Your task to perform on an android device: turn pop-ups on in chrome Image 0: 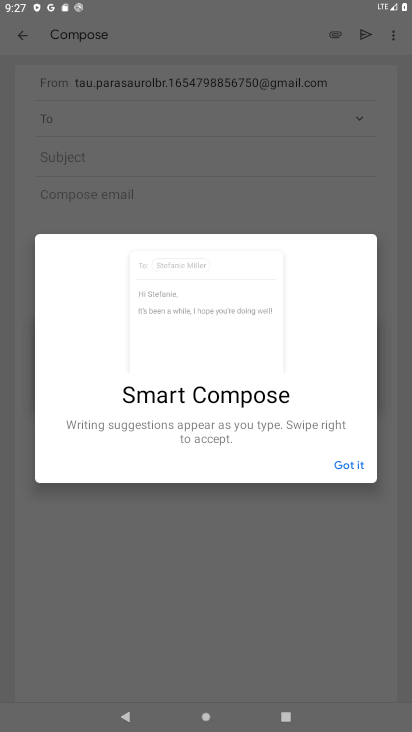
Step 0: press home button
Your task to perform on an android device: turn pop-ups on in chrome Image 1: 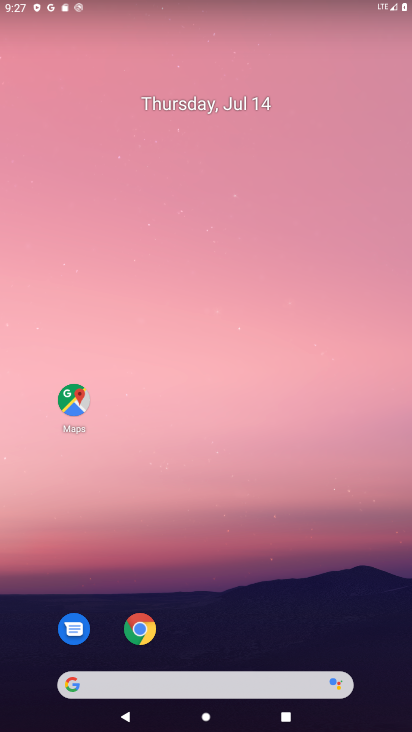
Step 1: click (149, 639)
Your task to perform on an android device: turn pop-ups on in chrome Image 2: 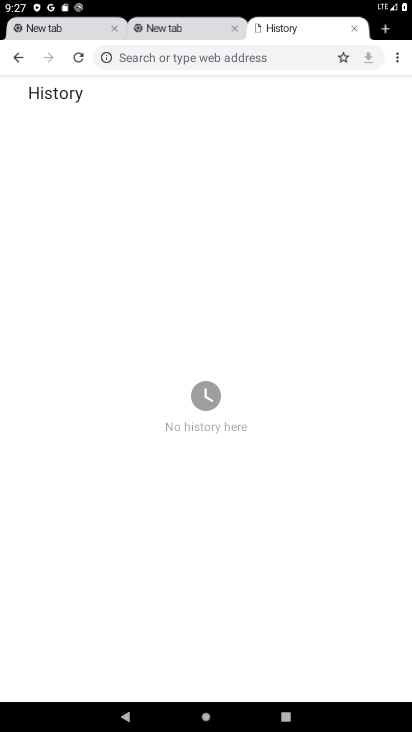
Step 2: click (398, 49)
Your task to perform on an android device: turn pop-ups on in chrome Image 3: 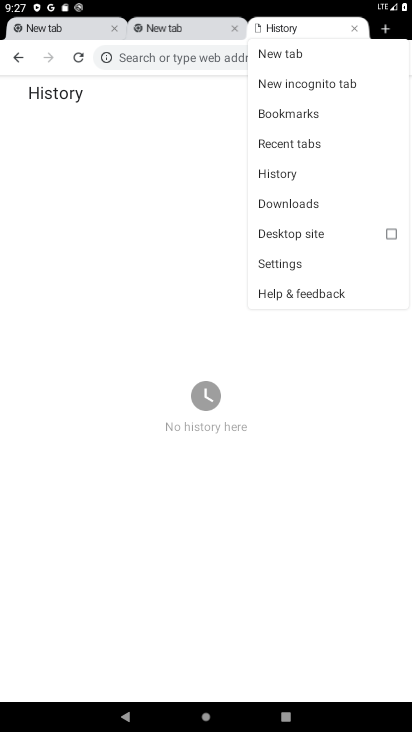
Step 3: click (279, 257)
Your task to perform on an android device: turn pop-ups on in chrome Image 4: 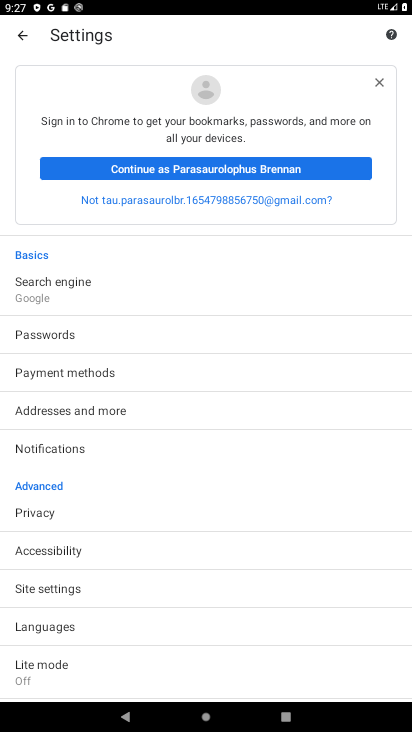
Step 4: click (72, 594)
Your task to perform on an android device: turn pop-ups on in chrome Image 5: 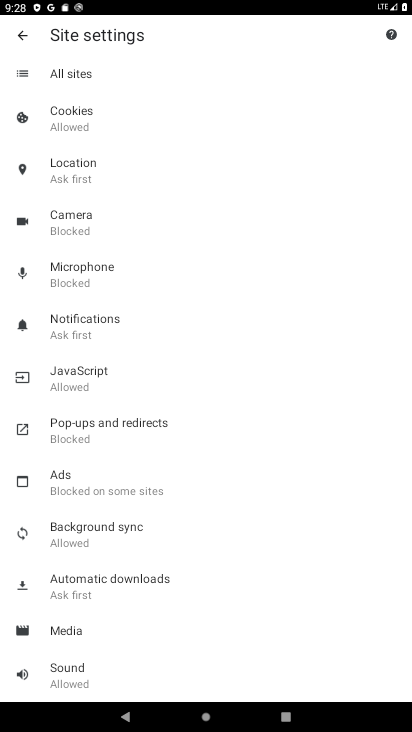
Step 5: click (94, 414)
Your task to perform on an android device: turn pop-ups on in chrome Image 6: 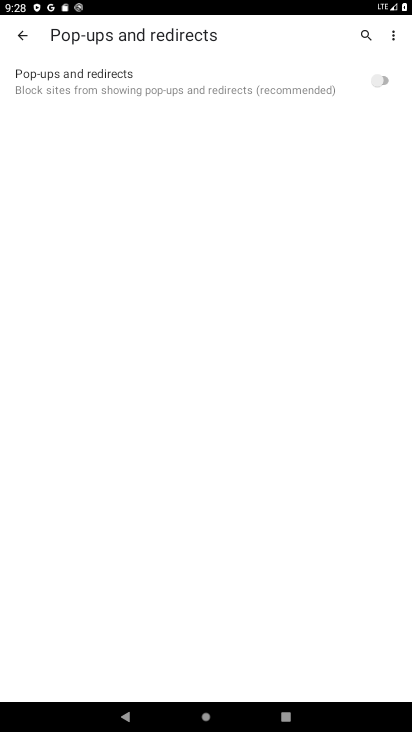
Step 6: click (373, 84)
Your task to perform on an android device: turn pop-ups on in chrome Image 7: 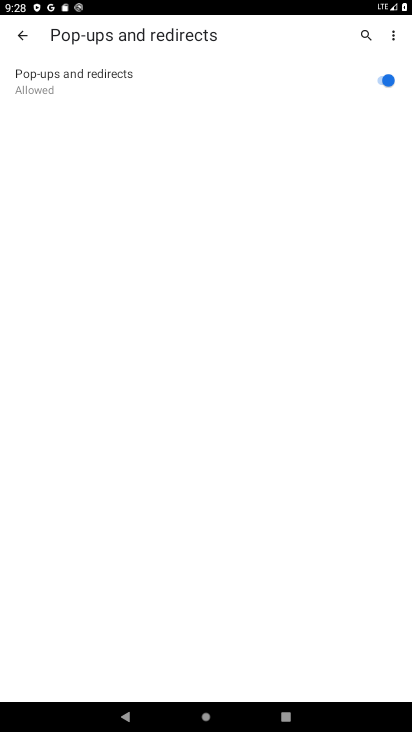
Step 7: task complete